Your task to perform on an android device: check out phone information Image 0: 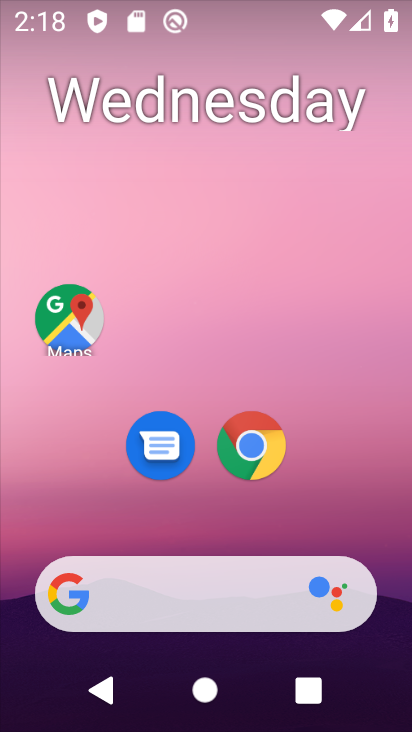
Step 0: drag from (118, 566) to (272, 207)
Your task to perform on an android device: check out phone information Image 1: 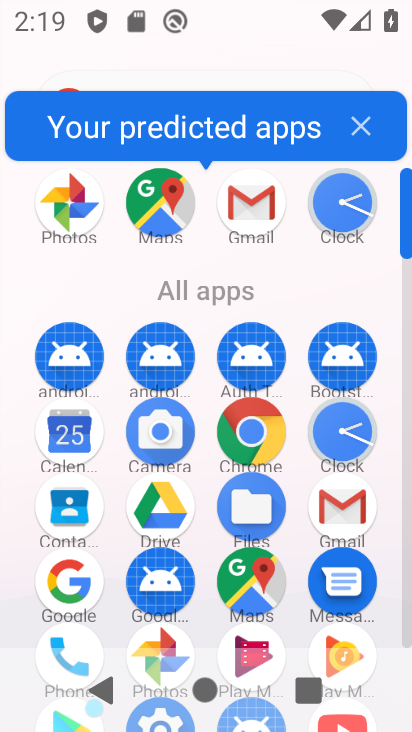
Step 1: drag from (184, 723) to (275, 294)
Your task to perform on an android device: check out phone information Image 2: 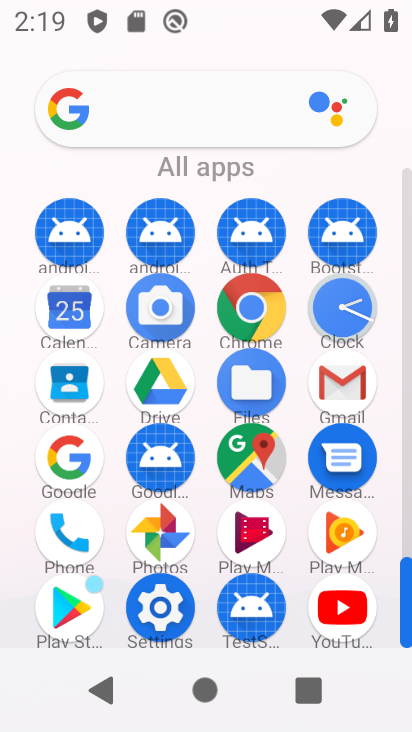
Step 2: click (178, 614)
Your task to perform on an android device: check out phone information Image 3: 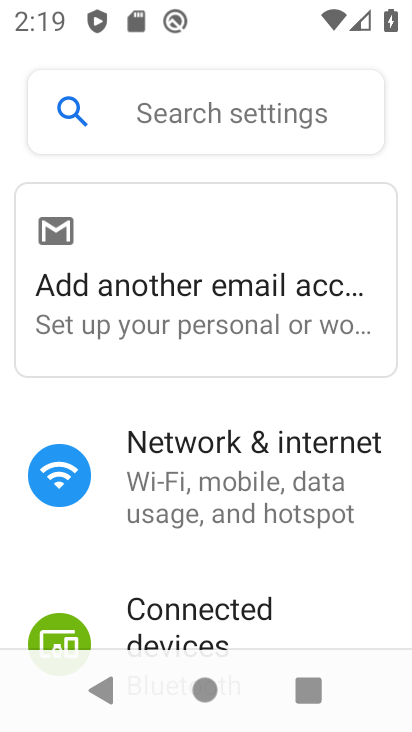
Step 3: drag from (194, 598) to (322, 54)
Your task to perform on an android device: check out phone information Image 4: 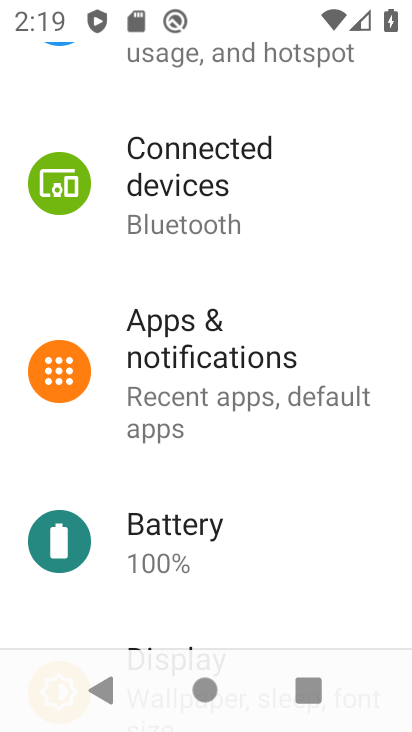
Step 4: drag from (212, 572) to (330, 65)
Your task to perform on an android device: check out phone information Image 5: 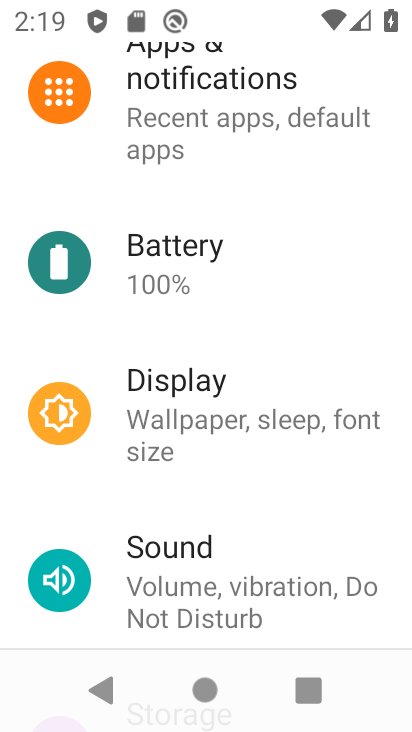
Step 5: drag from (216, 592) to (345, 93)
Your task to perform on an android device: check out phone information Image 6: 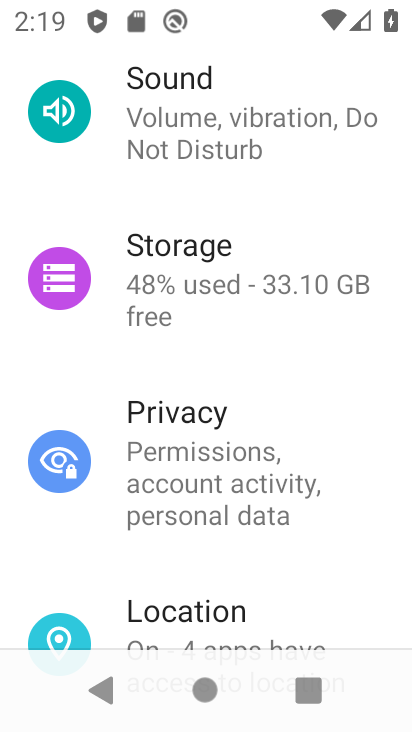
Step 6: drag from (201, 546) to (341, 91)
Your task to perform on an android device: check out phone information Image 7: 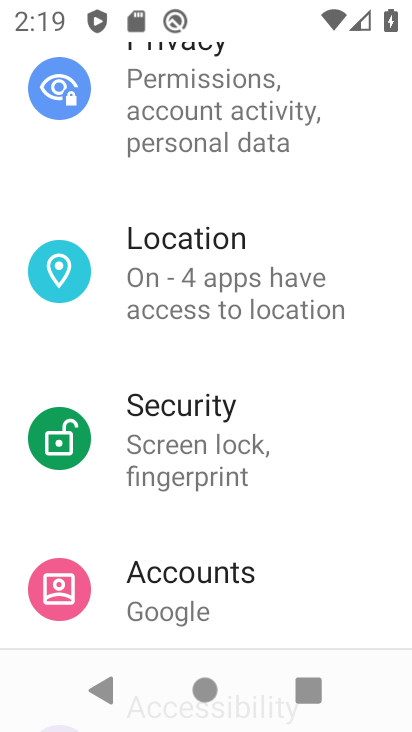
Step 7: drag from (236, 542) to (345, 120)
Your task to perform on an android device: check out phone information Image 8: 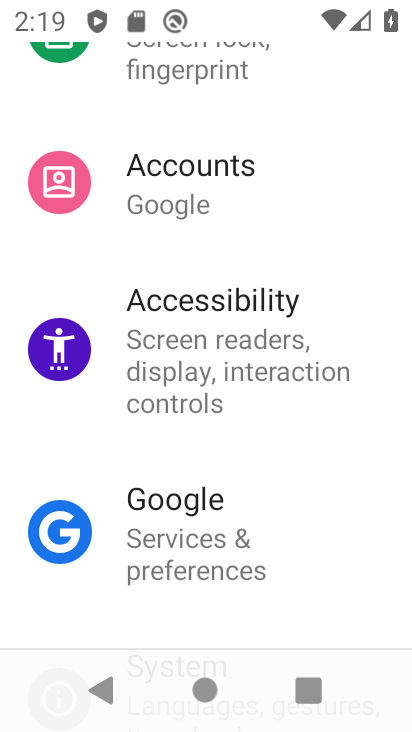
Step 8: drag from (256, 417) to (359, 78)
Your task to perform on an android device: check out phone information Image 9: 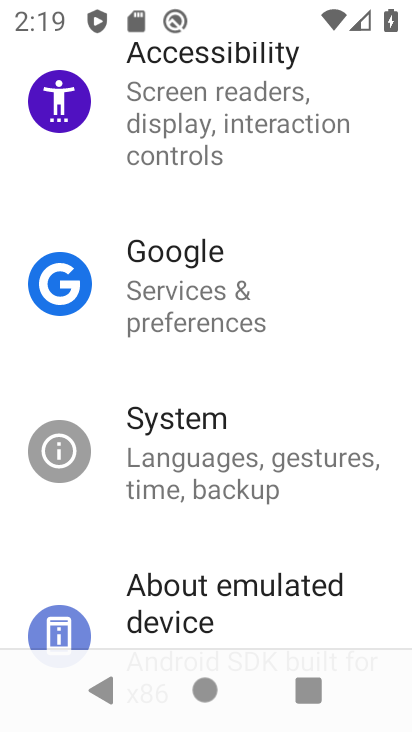
Step 9: drag from (203, 594) to (338, 133)
Your task to perform on an android device: check out phone information Image 10: 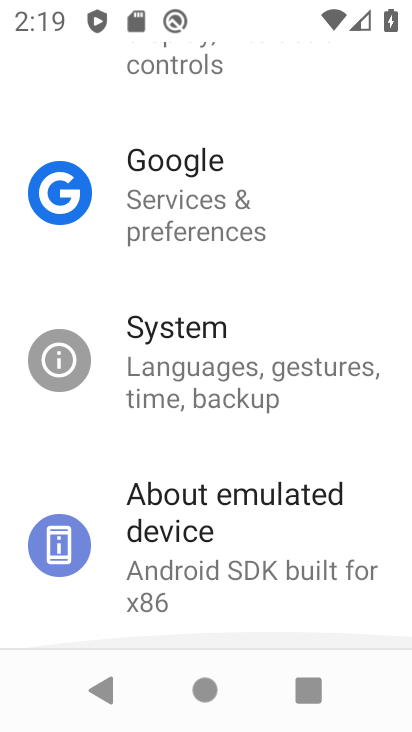
Step 10: click (225, 567)
Your task to perform on an android device: check out phone information Image 11: 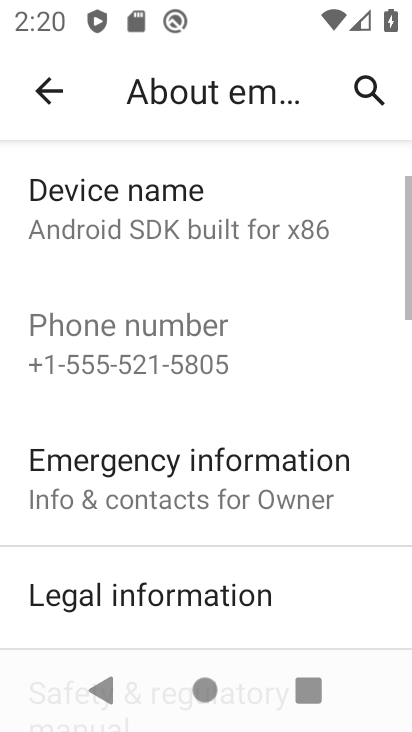
Step 11: task complete